Your task to perform on an android device: Open battery settings Image 0: 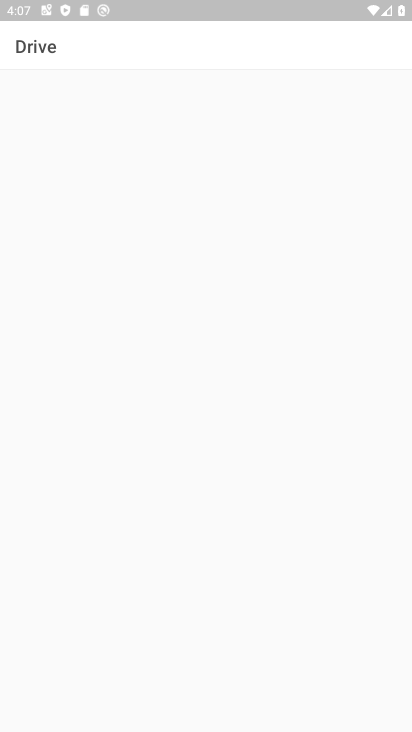
Step 0: click (321, 635)
Your task to perform on an android device: Open battery settings Image 1: 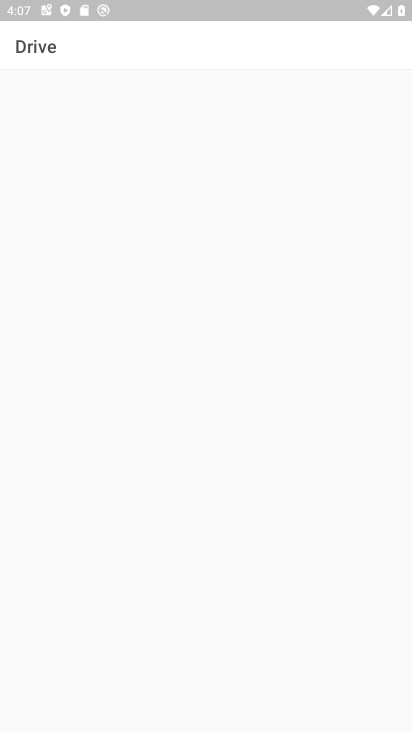
Step 1: press home button
Your task to perform on an android device: Open battery settings Image 2: 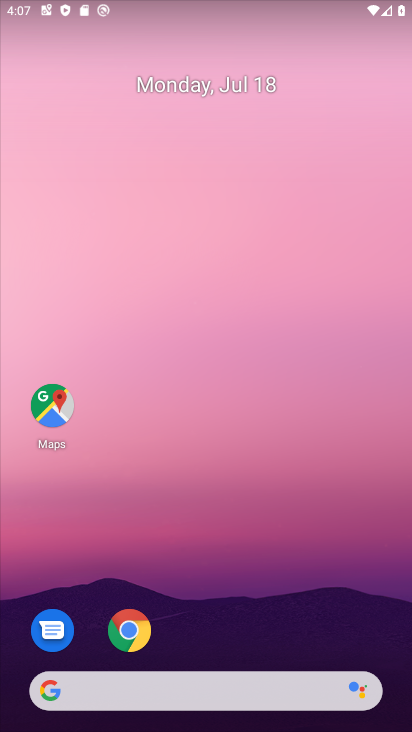
Step 2: drag from (320, 633) to (315, 205)
Your task to perform on an android device: Open battery settings Image 3: 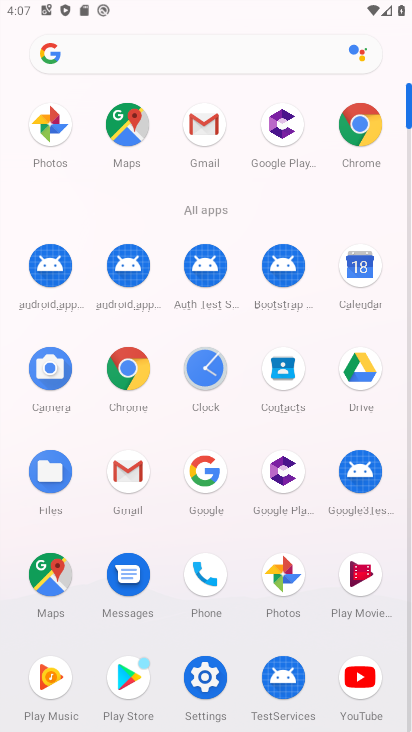
Step 3: click (205, 678)
Your task to perform on an android device: Open battery settings Image 4: 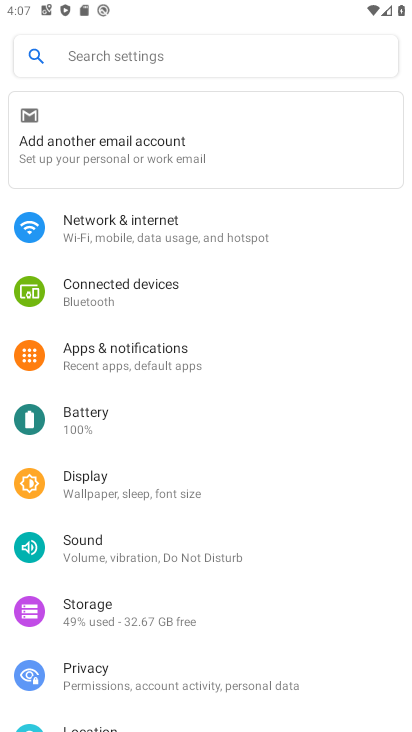
Step 4: click (85, 409)
Your task to perform on an android device: Open battery settings Image 5: 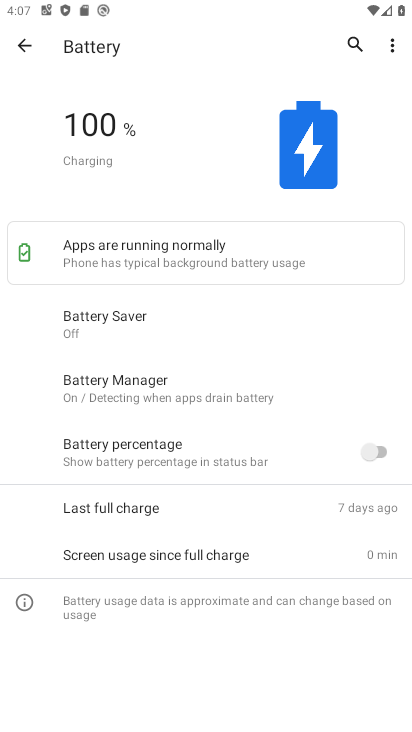
Step 5: task complete